Your task to perform on an android device: see tabs open on other devices in the chrome app Image 0: 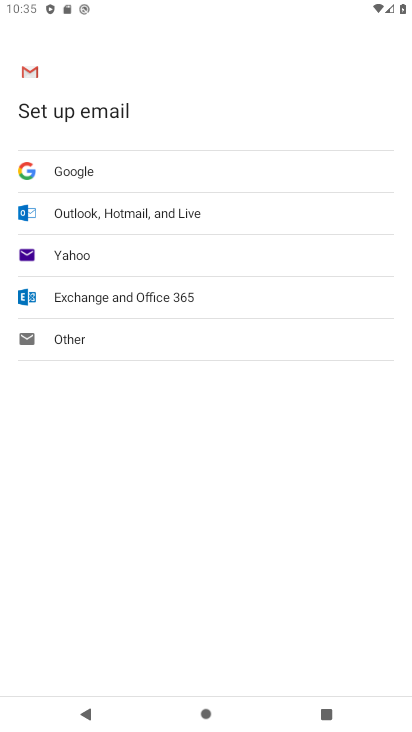
Step 0: click (116, 610)
Your task to perform on an android device: see tabs open on other devices in the chrome app Image 1: 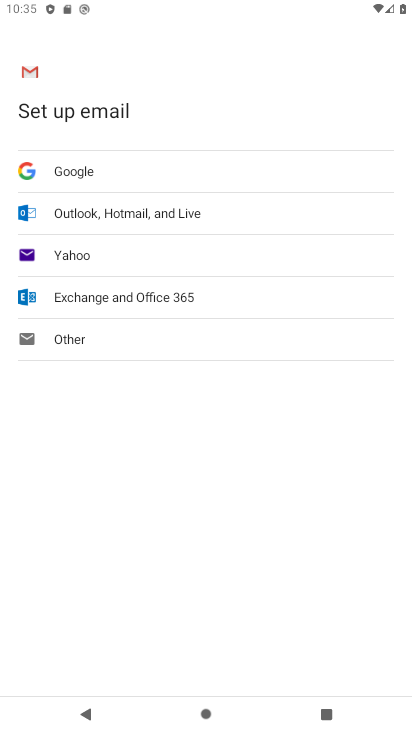
Step 1: press home button
Your task to perform on an android device: see tabs open on other devices in the chrome app Image 2: 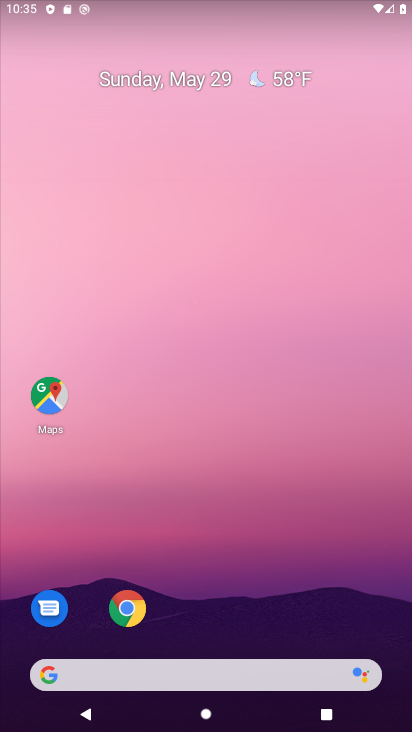
Step 2: drag from (211, 656) to (217, 197)
Your task to perform on an android device: see tabs open on other devices in the chrome app Image 3: 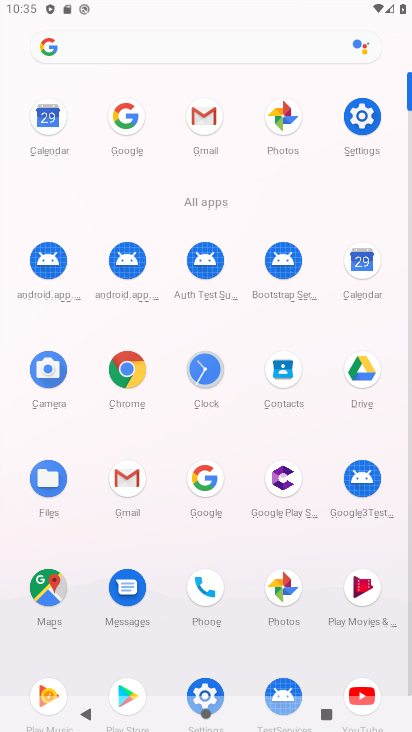
Step 3: click (126, 371)
Your task to perform on an android device: see tabs open on other devices in the chrome app Image 4: 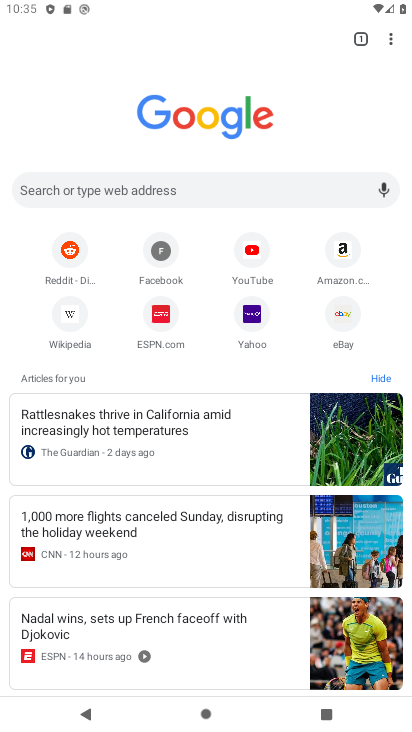
Step 4: click (360, 41)
Your task to perform on an android device: see tabs open on other devices in the chrome app Image 5: 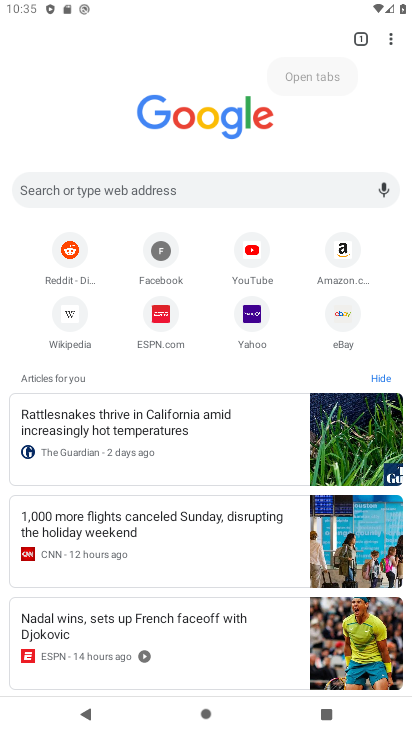
Step 5: task complete